Your task to perform on an android device: all mails in gmail Image 0: 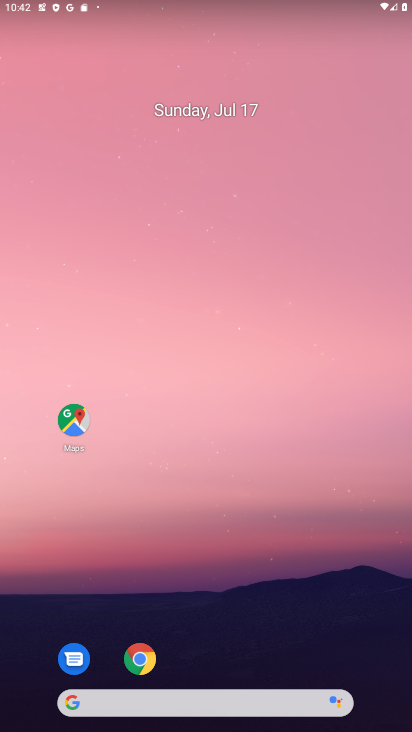
Step 0: drag from (207, 653) to (146, 26)
Your task to perform on an android device: all mails in gmail Image 1: 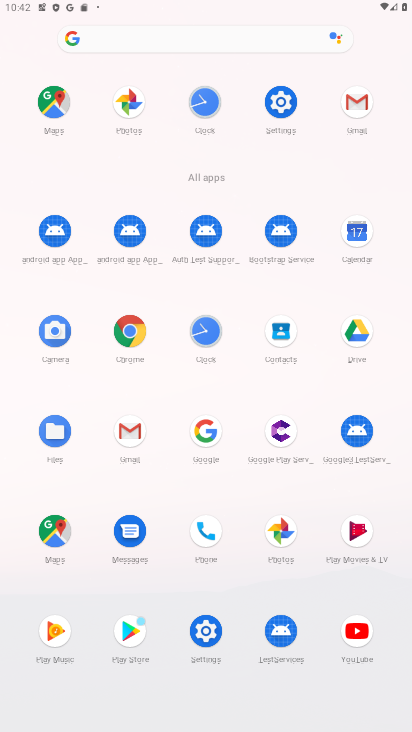
Step 1: click (353, 110)
Your task to perform on an android device: all mails in gmail Image 2: 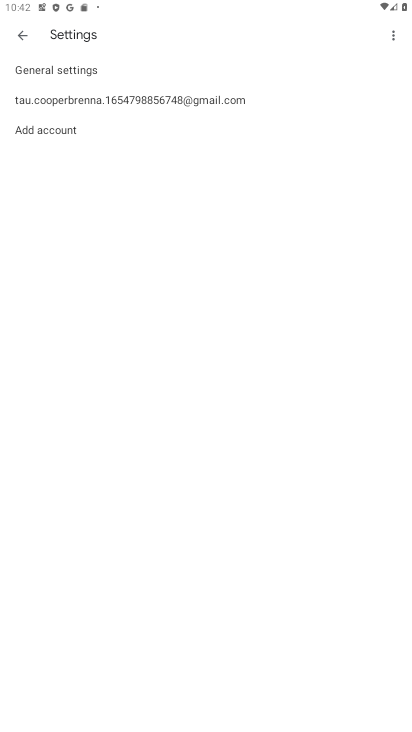
Step 2: click (26, 42)
Your task to perform on an android device: all mails in gmail Image 3: 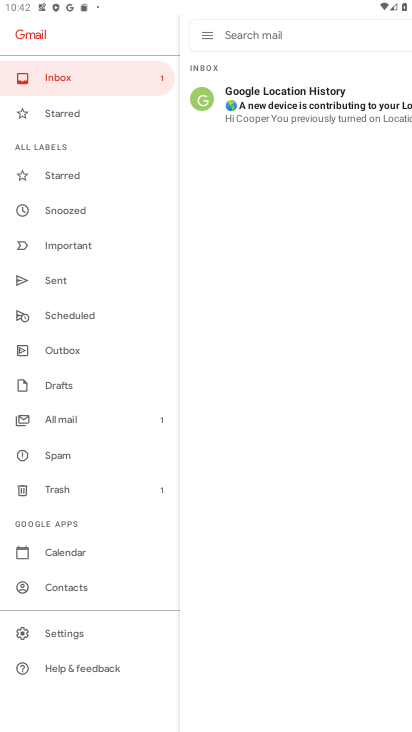
Step 3: task complete